Your task to perform on an android device: turn pop-ups off in chrome Image 0: 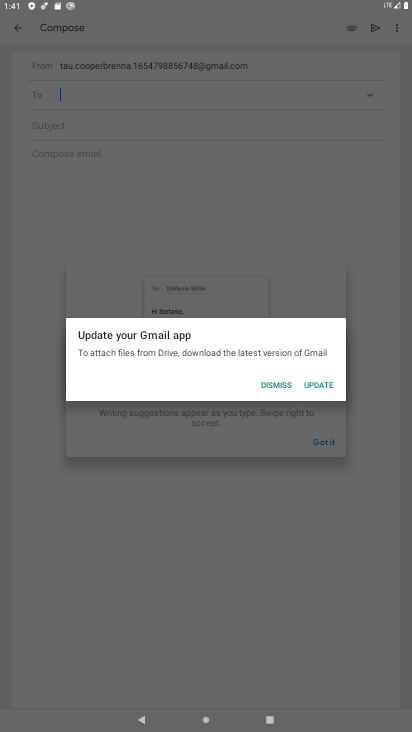
Step 0: press home button
Your task to perform on an android device: turn pop-ups off in chrome Image 1: 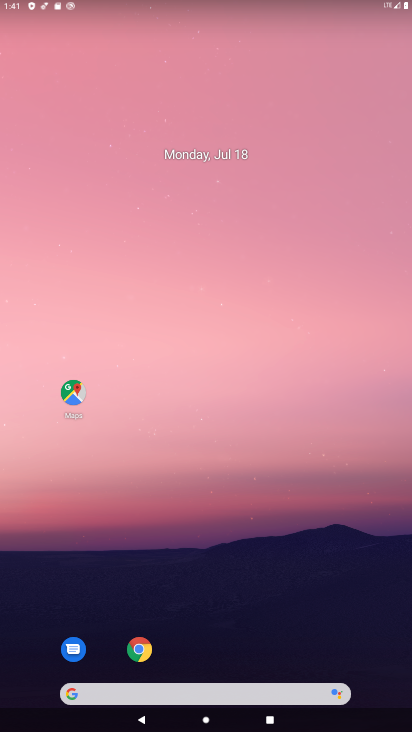
Step 1: click (146, 650)
Your task to perform on an android device: turn pop-ups off in chrome Image 2: 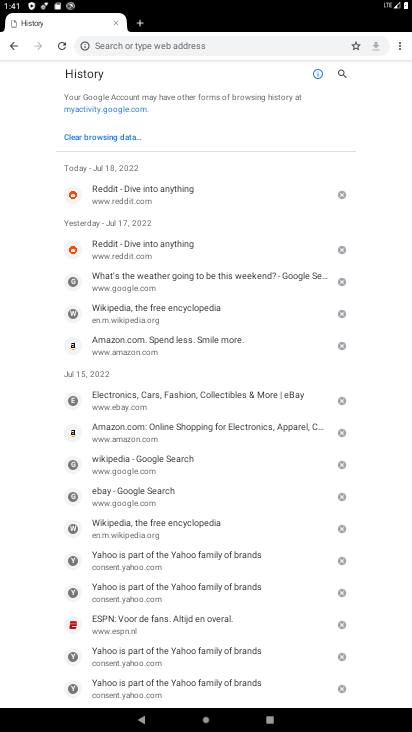
Step 2: click (398, 41)
Your task to perform on an android device: turn pop-ups off in chrome Image 3: 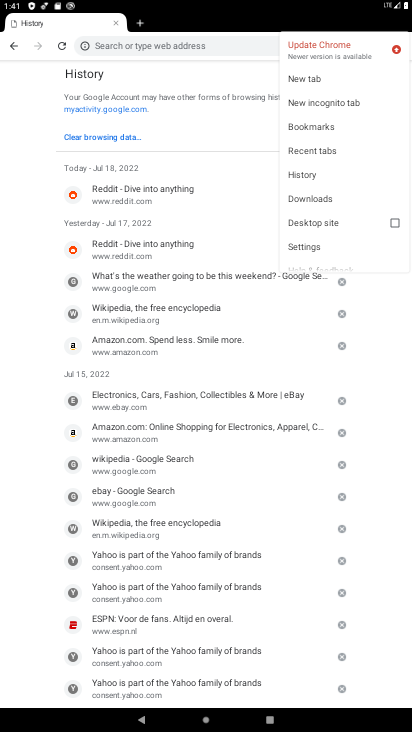
Step 3: click (311, 252)
Your task to perform on an android device: turn pop-ups off in chrome Image 4: 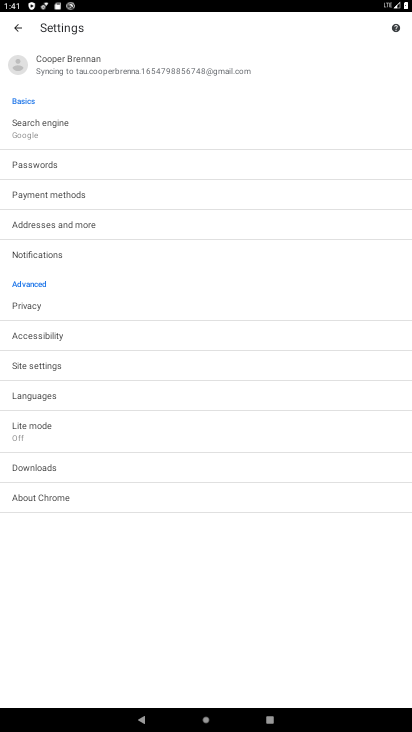
Step 4: click (72, 361)
Your task to perform on an android device: turn pop-ups off in chrome Image 5: 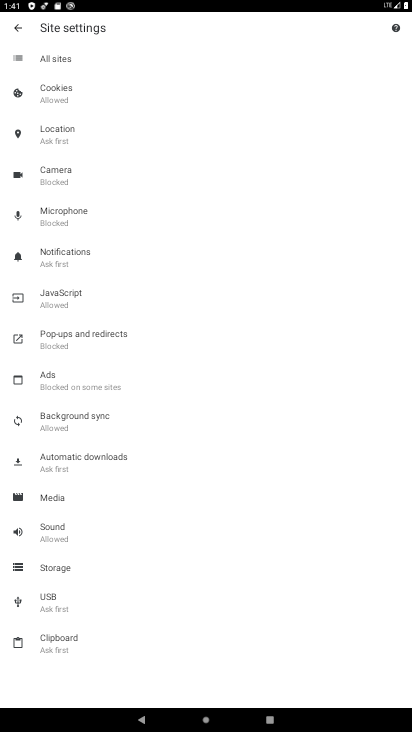
Step 5: click (81, 335)
Your task to perform on an android device: turn pop-ups off in chrome Image 6: 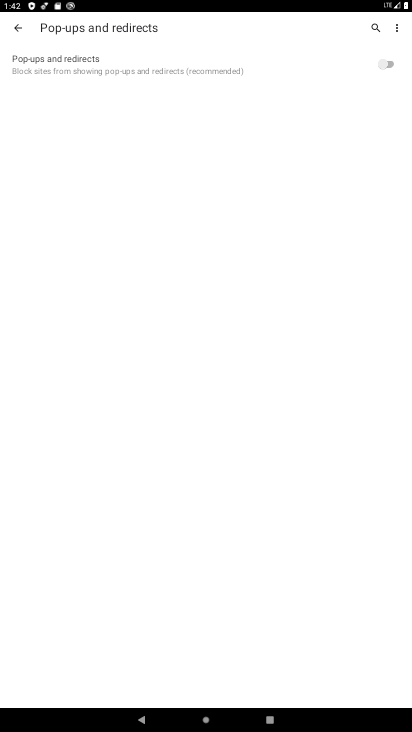
Step 6: task complete